Your task to perform on an android device: What is the news today? Image 0: 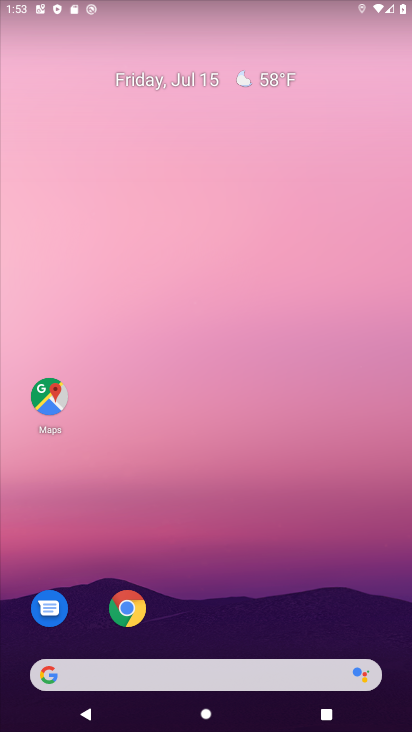
Step 0: drag from (233, 594) to (196, 169)
Your task to perform on an android device: What is the news today? Image 1: 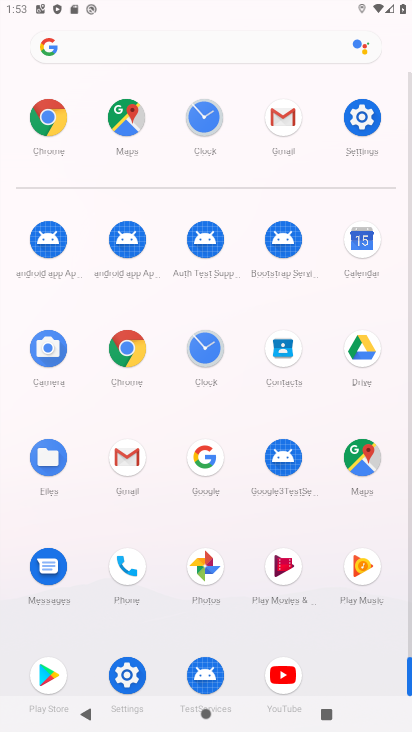
Step 1: click (127, 346)
Your task to perform on an android device: What is the news today? Image 2: 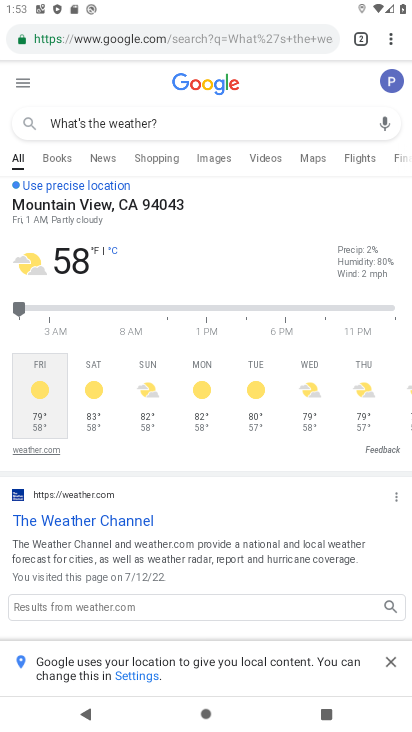
Step 2: click (206, 38)
Your task to perform on an android device: What is the news today? Image 3: 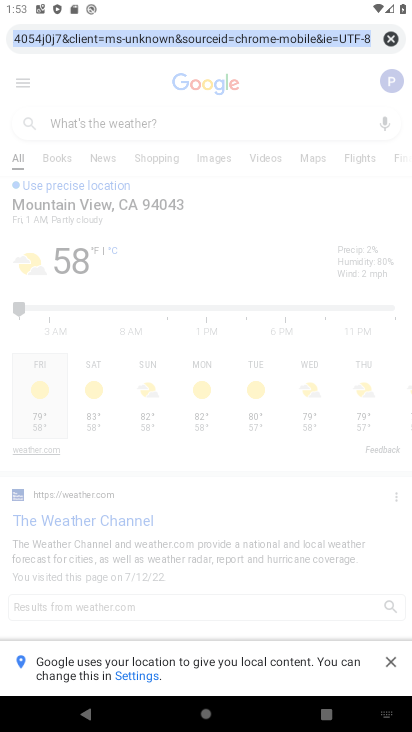
Step 3: click (397, 36)
Your task to perform on an android device: What is the news today? Image 4: 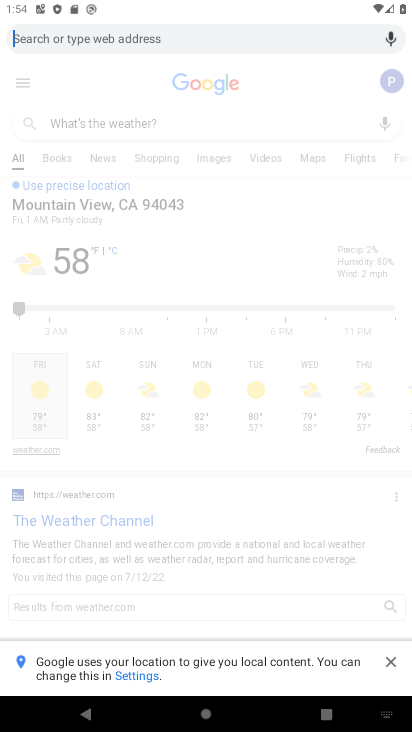
Step 4: type "What is the news today?"
Your task to perform on an android device: What is the news today? Image 5: 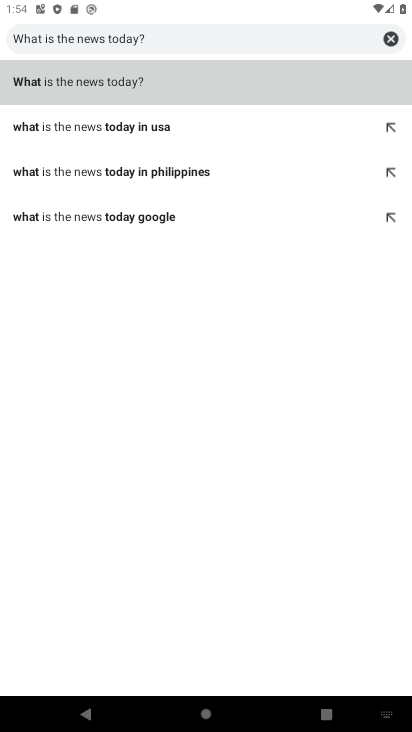
Step 5: click (101, 84)
Your task to perform on an android device: What is the news today? Image 6: 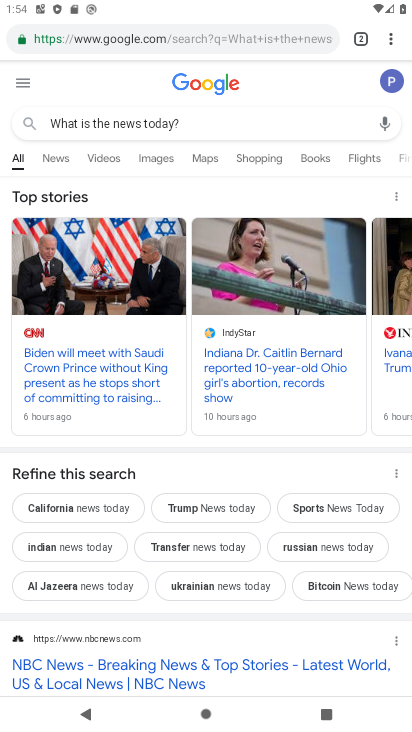
Step 6: click (36, 156)
Your task to perform on an android device: What is the news today? Image 7: 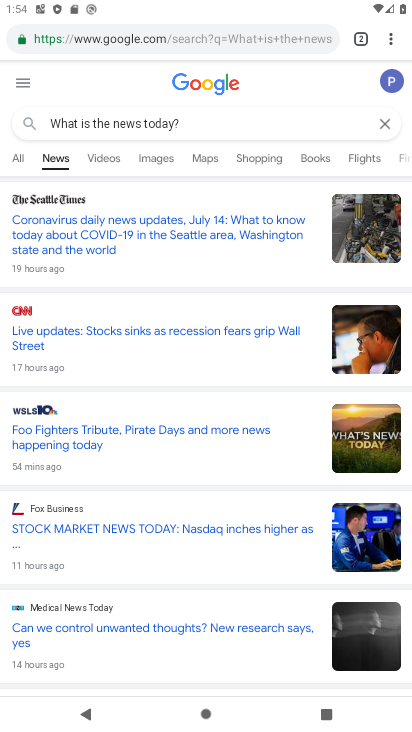
Step 7: task complete